Your task to perform on an android device: Play the last video I watched on Youtube Image 0: 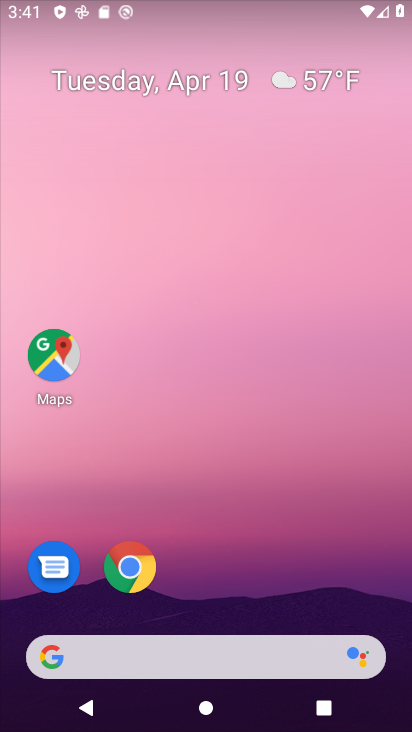
Step 0: drag from (305, 583) to (301, 190)
Your task to perform on an android device: Play the last video I watched on Youtube Image 1: 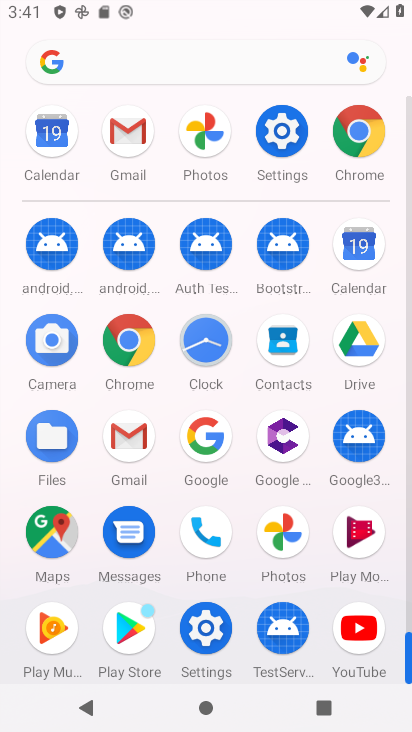
Step 1: click (362, 626)
Your task to perform on an android device: Play the last video I watched on Youtube Image 2: 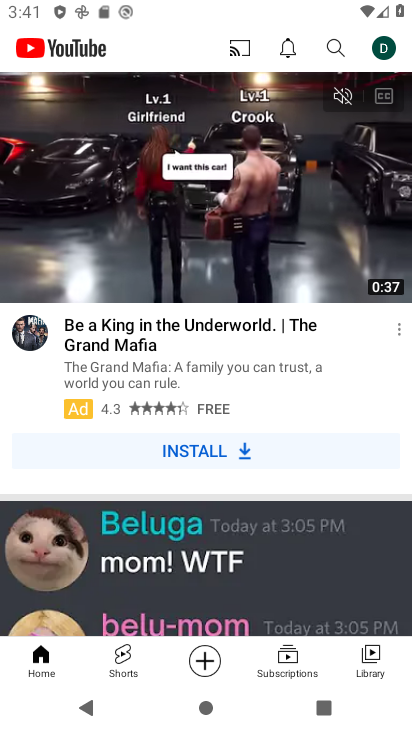
Step 2: click (367, 664)
Your task to perform on an android device: Play the last video I watched on Youtube Image 3: 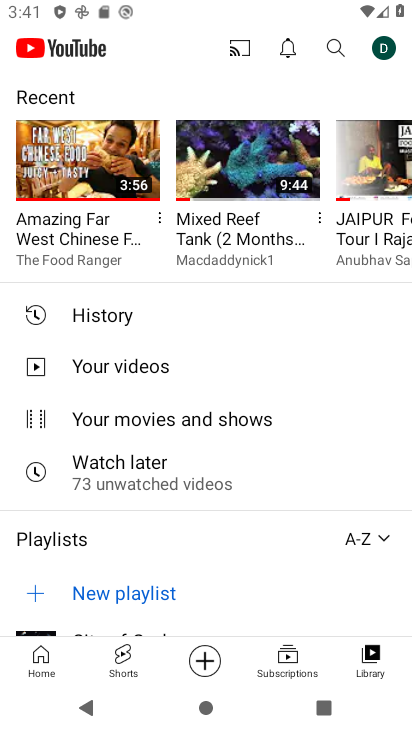
Step 3: click (79, 151)
Your task to perform on an android device: Play the last video I watched on Youtube Image 4: 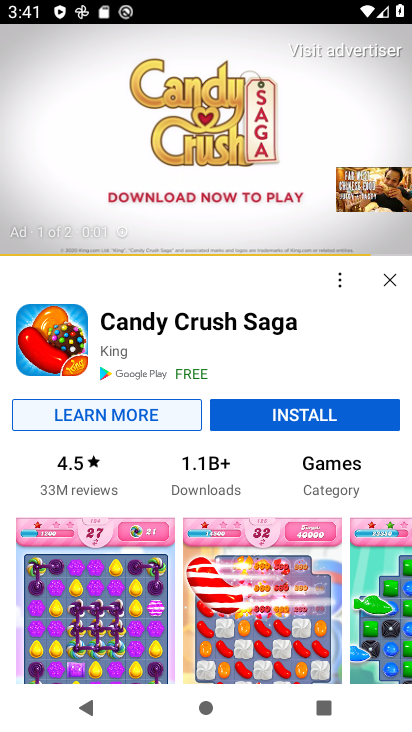
Step 4: task complete